Your task to perform on an android device: toggle notifications settings in the gmail app Image 0: 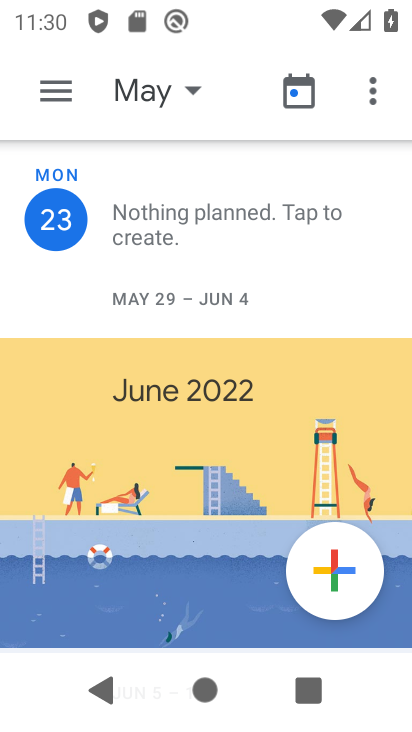
Step 0: press home button
Your task to perform on an android device: toggle notifications settings in the gmail app Image 1: 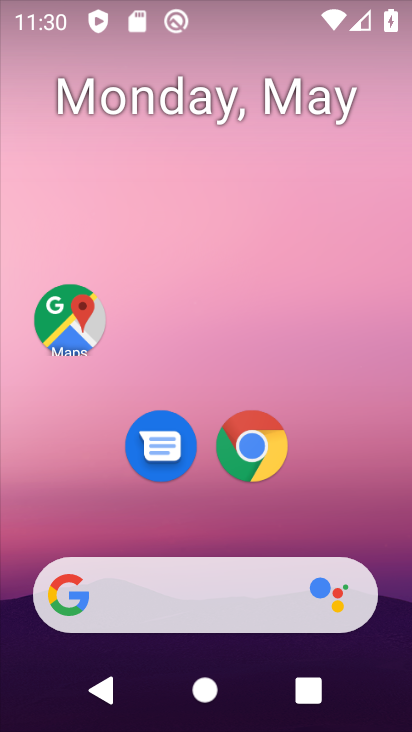
Step 1: drag from (335, 472) to (234, 99)
Your task to perform on an android device: toggle notifications settings in the gmail app Image 2: 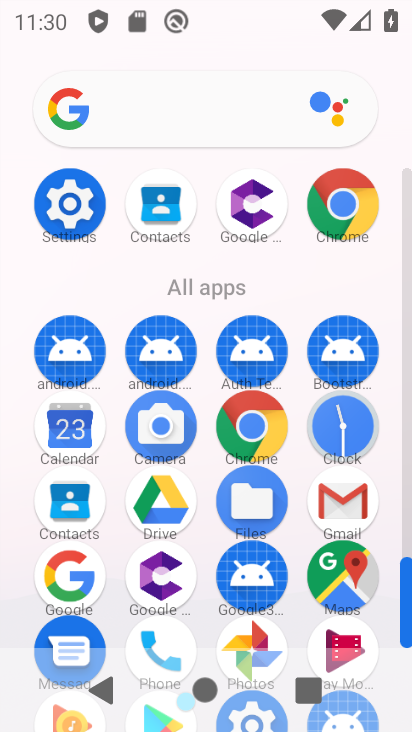
Step 2: click (336, 498)
Your task to perform on an android device: toggle notifications settings in the gmail app Image 3: 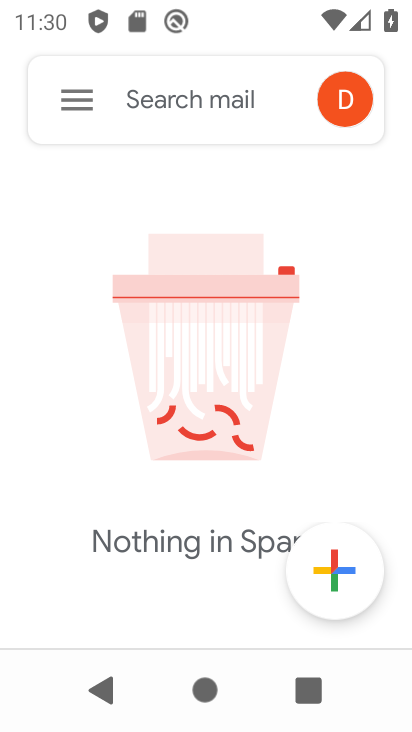
Step 3: click (60, 95)
Your task to perform on an android device: toggle notifications settings in the gmail app Image 4: 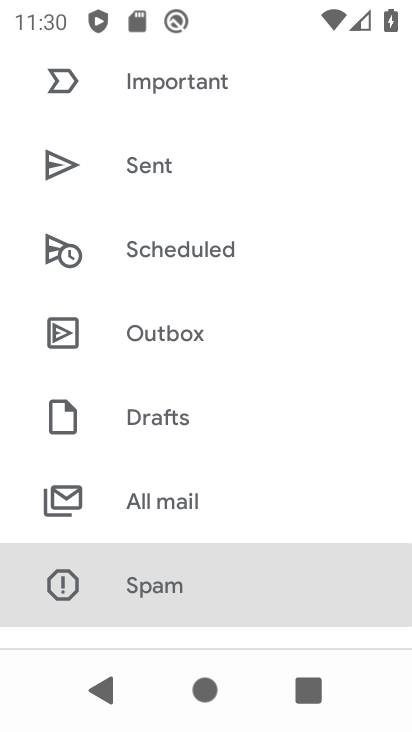
Step 4: drag from (241, 144) to (239, 56)
Your task to perform on an android device: toggle notifications settings in the gmail app Image 5: 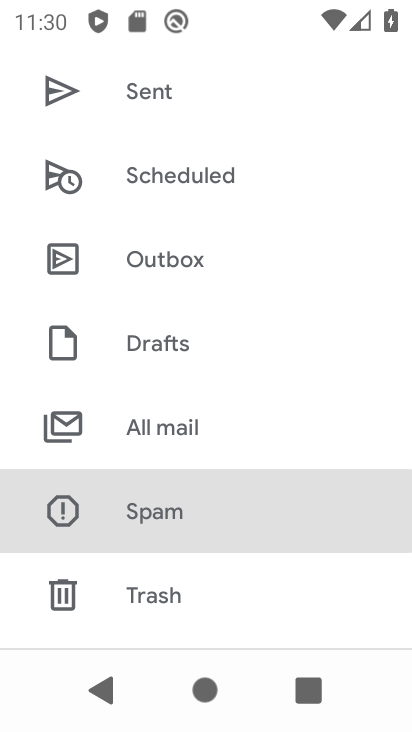
Step 5: drag from (231, 402) to (183, 41)
Your task to perform on an android device: toggle notifications settings in the gmail app Image 6: 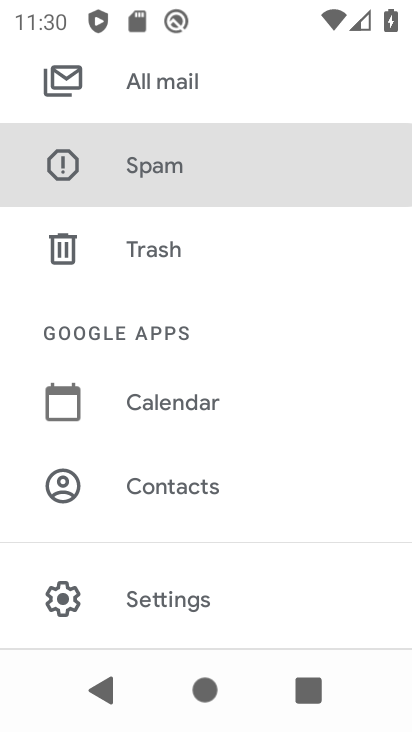
Step 6: drag from (223, 561) to (197, 324)
Your task to perform on an android device: toggle notifications settings in the gmail app Image 7: 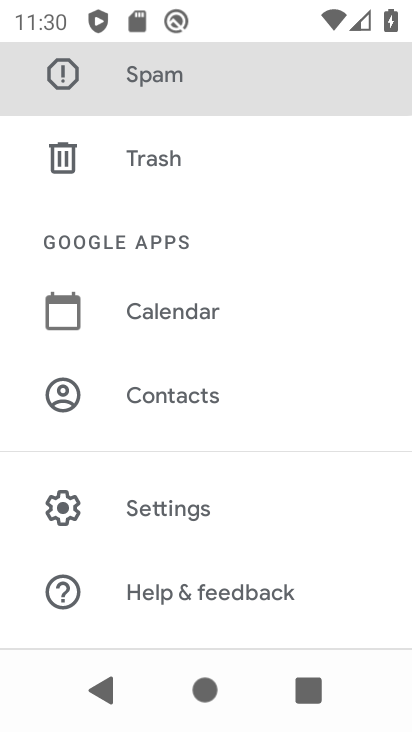
Step 7: click (166, 506)
Your task to perform on an android device: toggle notifications settings in the gmail app Image 8: 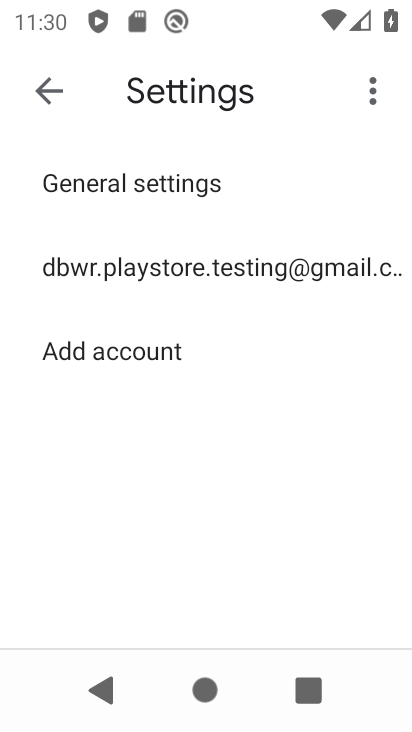
Step 8: click (112, 182)
Your task to perform on an android device: toggle notifications settings in the gmail app Image 9: 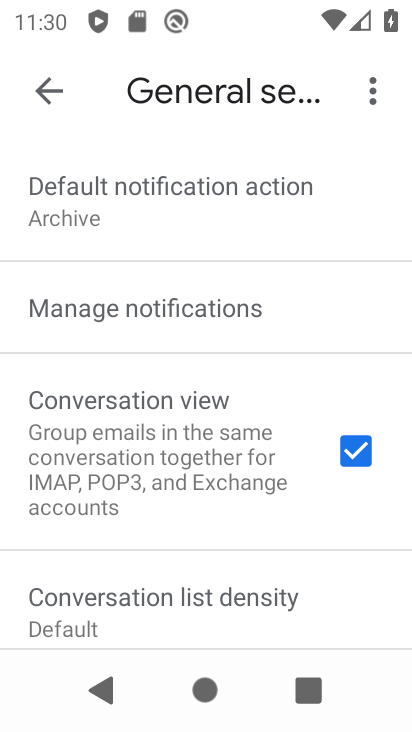
Step 9: click (130, 307)
Your task to perform on an android device: toggle notifications settings in the gmail app Image 10: 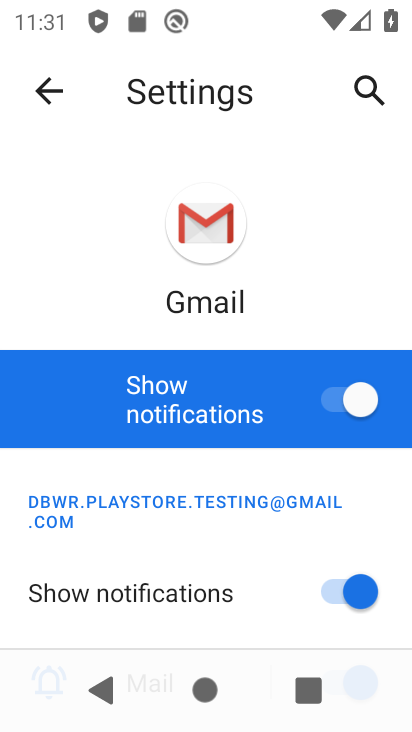
Step 10: click (361, 406)
Your task to perform on an android device: toggle notifications settings in the gmail app Image 11: 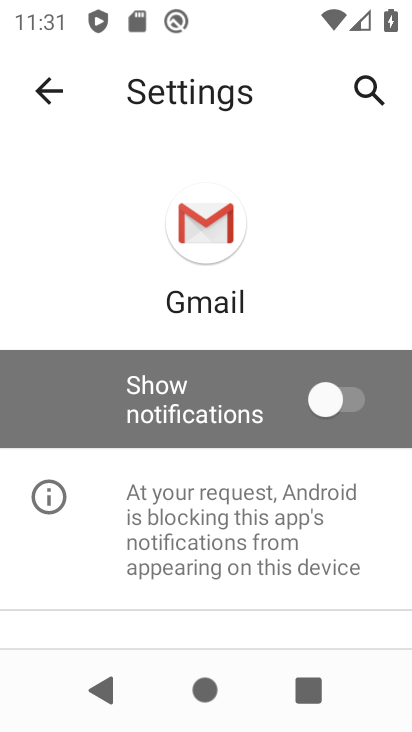
Step 11: task complete